Your task to perform on an android device: Open calendar and show me the first week of next month Image 0: 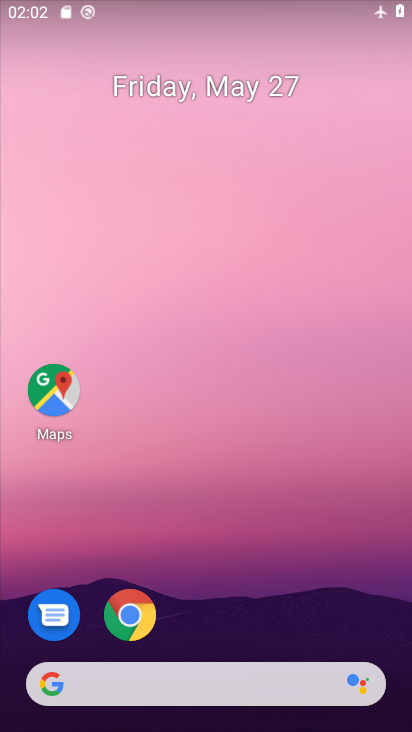
Step 0: drag from (372, 629) to (372, 218)
Your task to perform on an android device: Open calendar and show me the first week of next month Image 1: 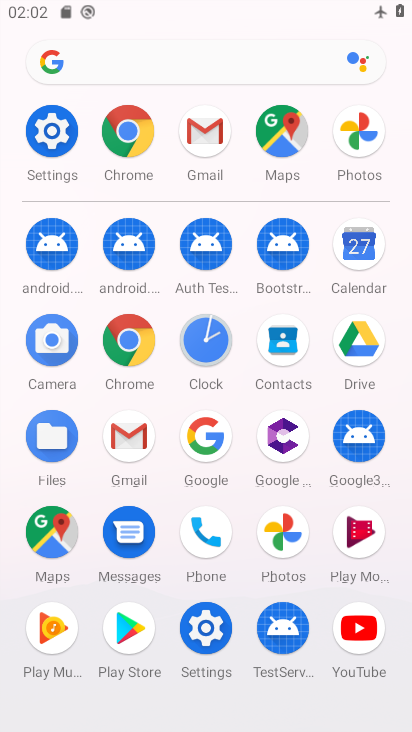
Step 1: click (358, 256)
Your task to perform on an android device: Open calendar and show me the first week of next month Image 2: 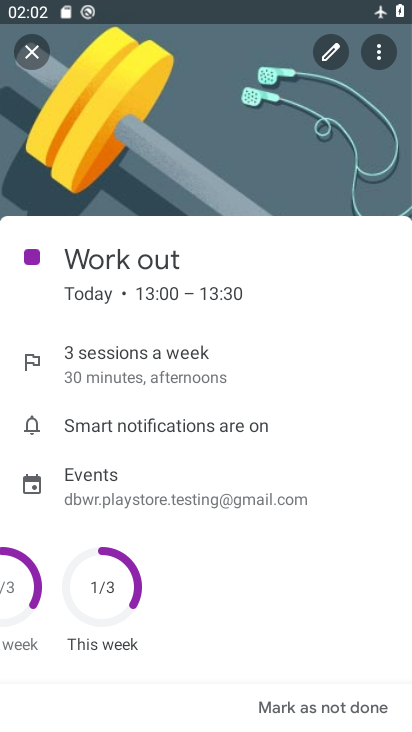
Step 2: click (32, 54)
Your task to perform on an android device: Open calendar and show me the first week of next month Image 3: 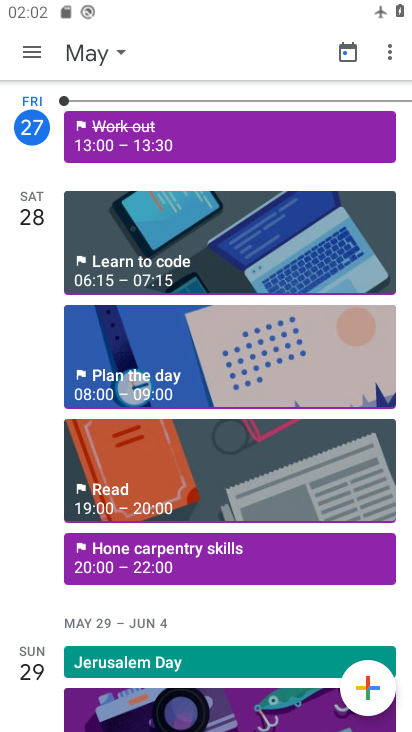
Step 3: click (129, 52)
Your task to perform on an android device: Open calendar and show me the first week of next month Image 4: 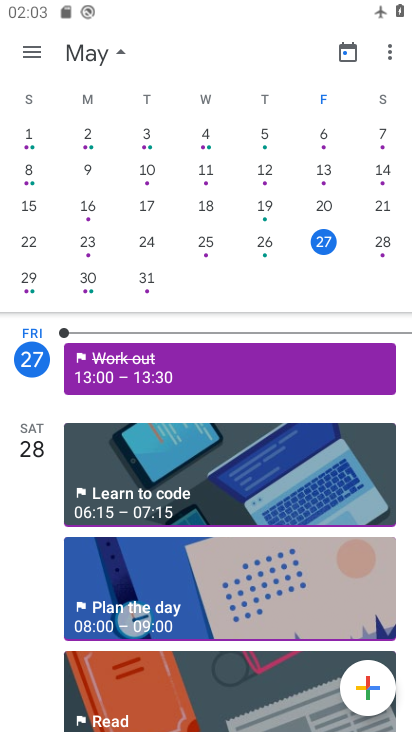
Step 4: drag from (361, 116) to (20, 126)
Your task to perform on an android device: Open calendar and show me the first week of next month Image 5: 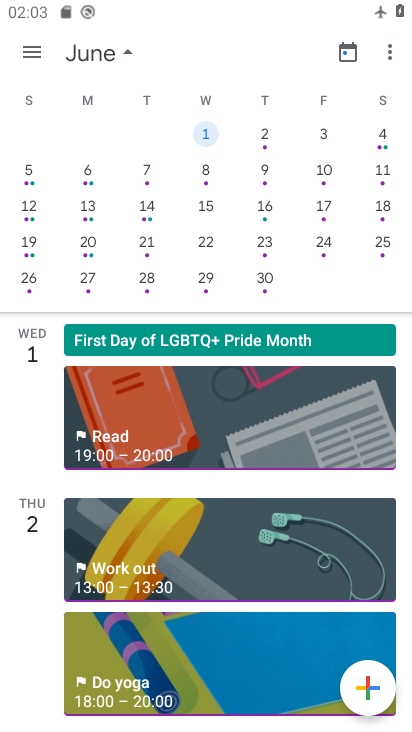
Step 5: click (264, 136)
Your task to perform on an android device: Open calendar and show me the first week of next month Image 6: 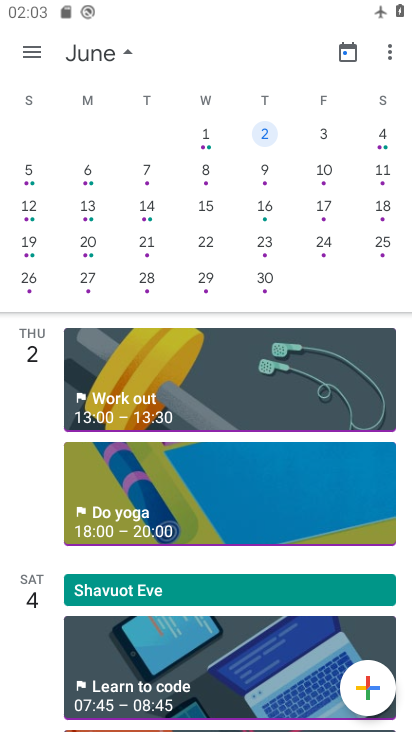
Step 6: task complete